Your task to perform on an android device: Turn off the flashlight Image 0: 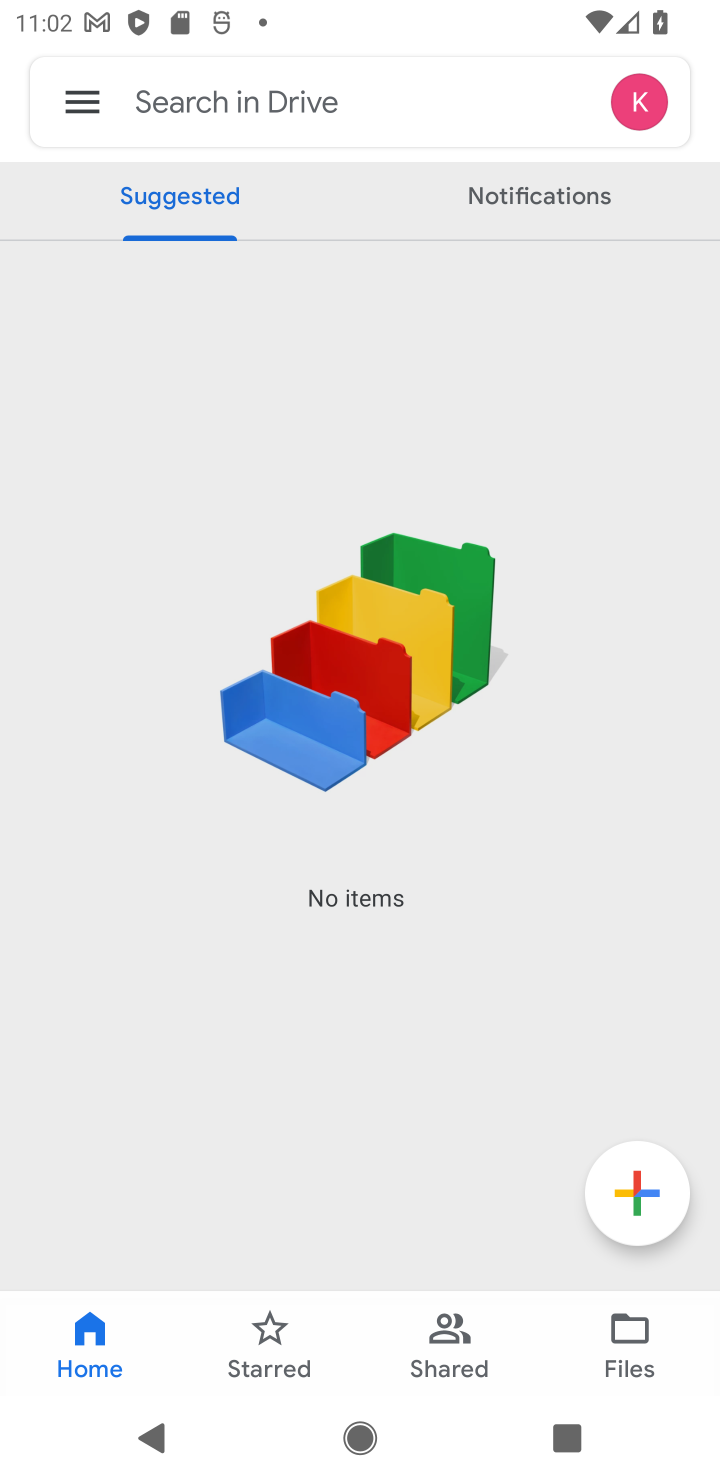
Step 0: press home button
Your task to perform on an android device: Turn off the flashlight Image 1: 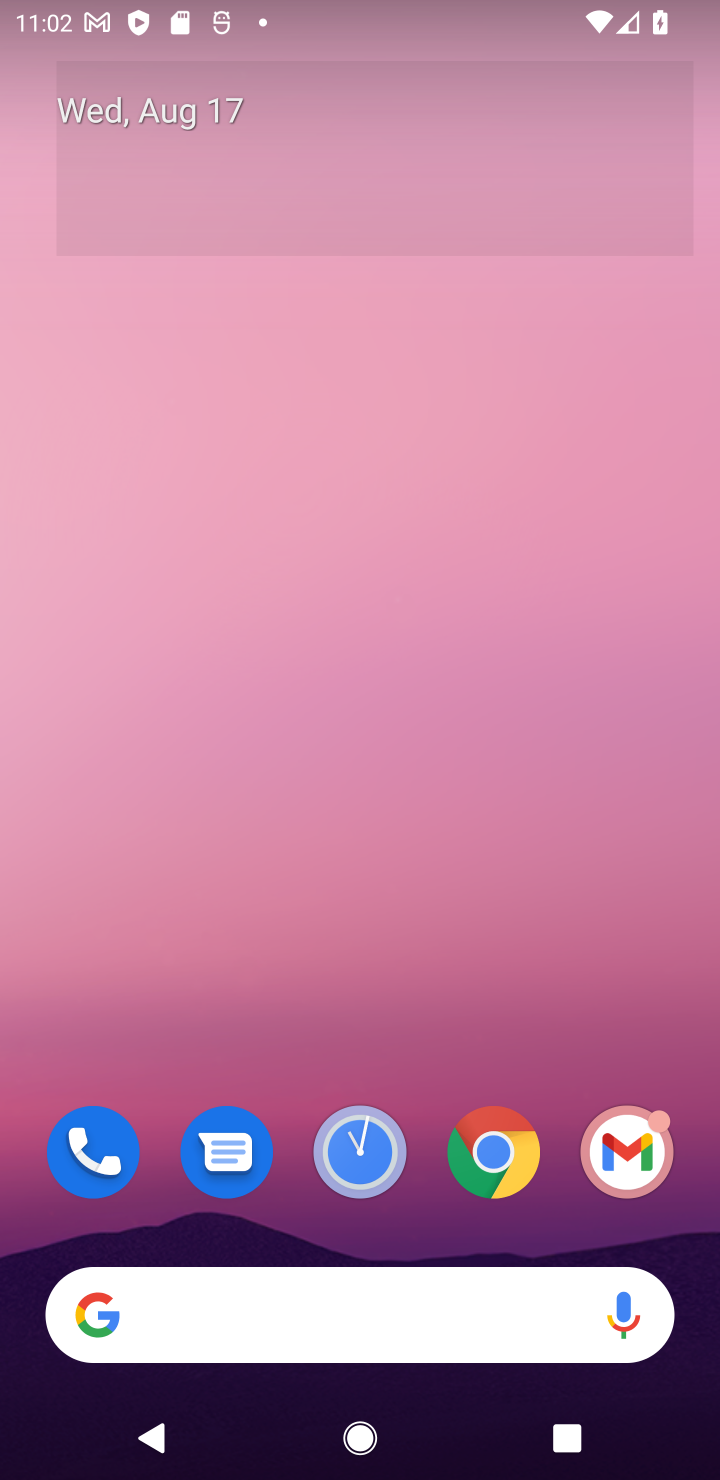
Step 1: drag from (543, 1205) to (341, 17)
Your task to perform on an android device: Turn off the flashlight Image 2: 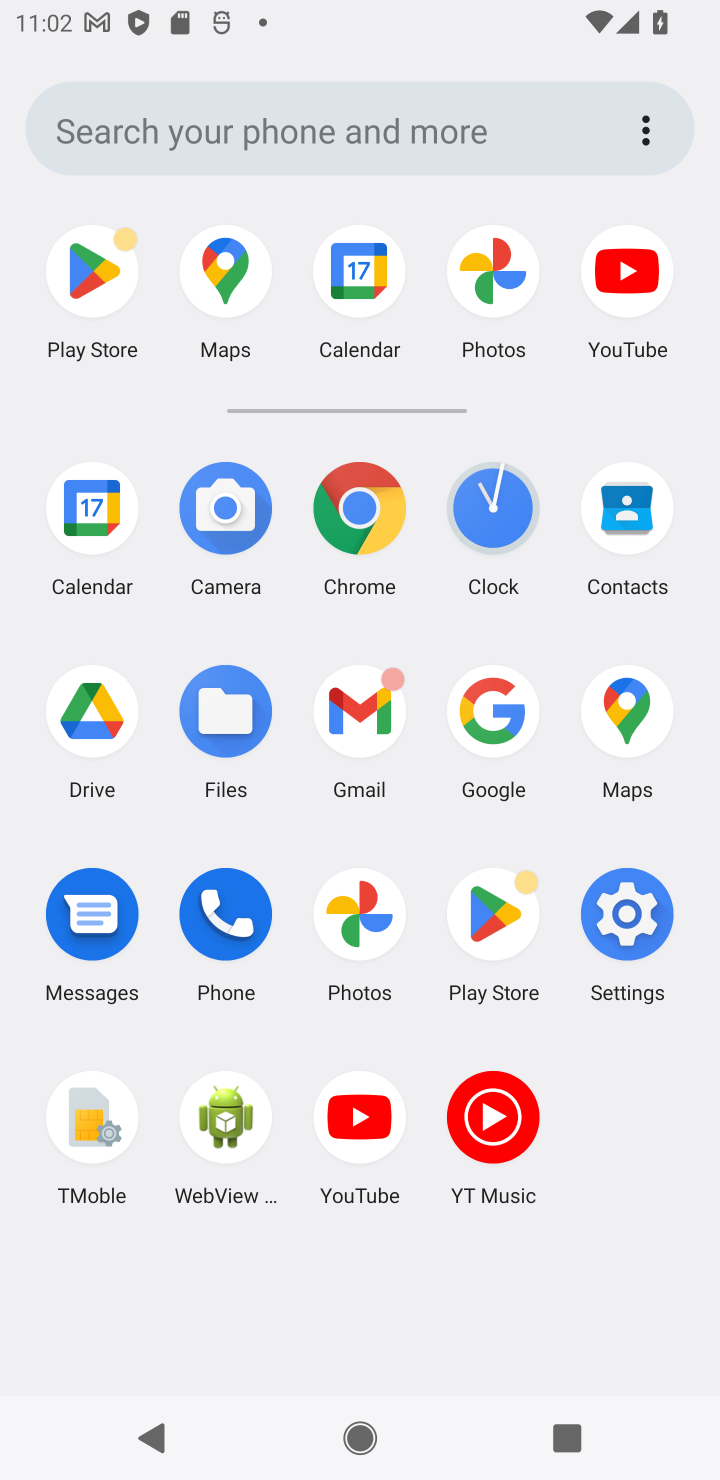
Step 2: click (623, 942)
Your task to perform on an android device: Turn off the flashlight Image 3: 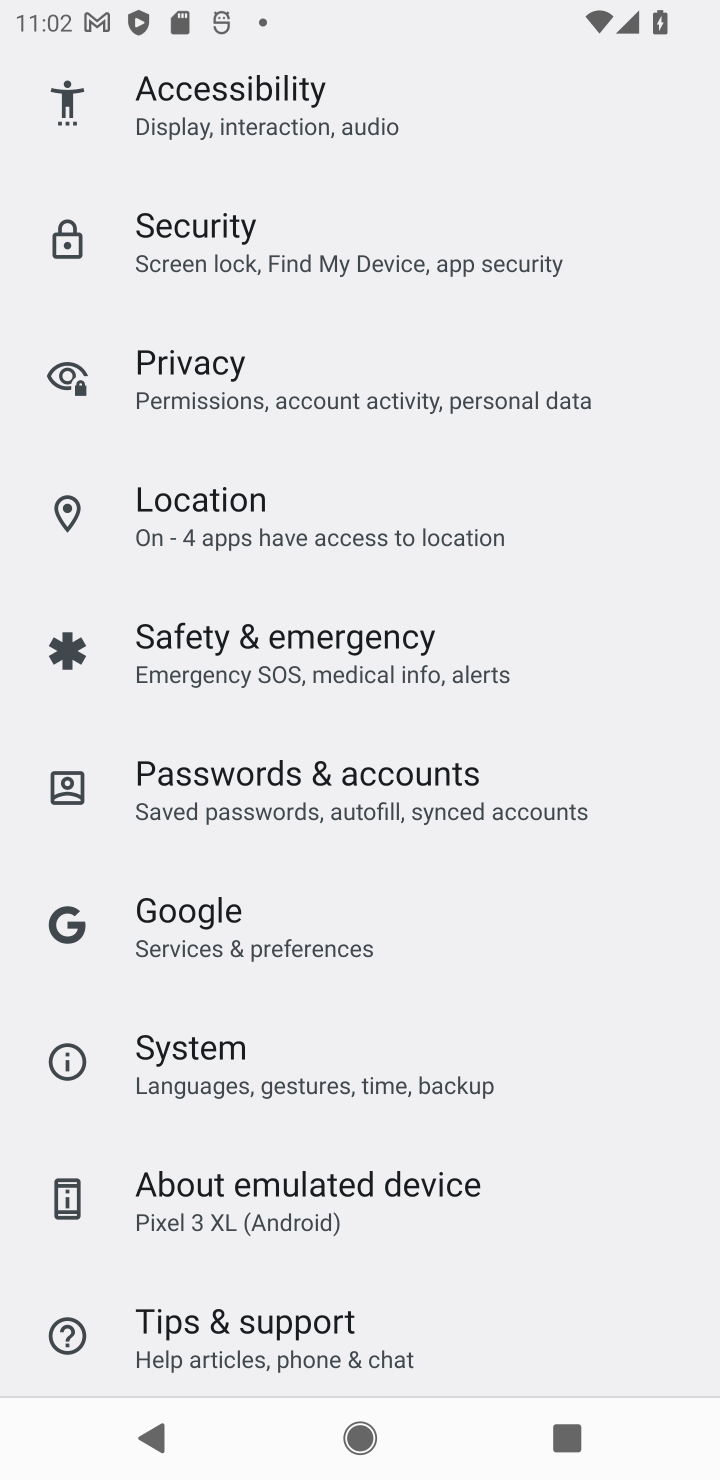
Step 3: task complete